Your task to perform on an android device: turn on sleep mode Image 0: 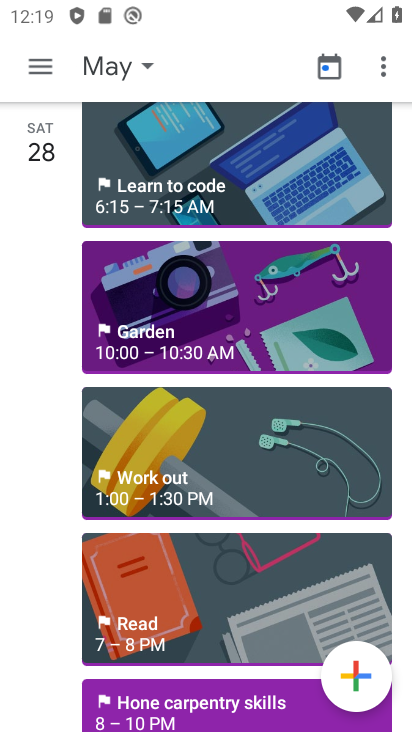
Step 0: press home button
Your task to perform on an android device: turn on sleep mode Image 1: 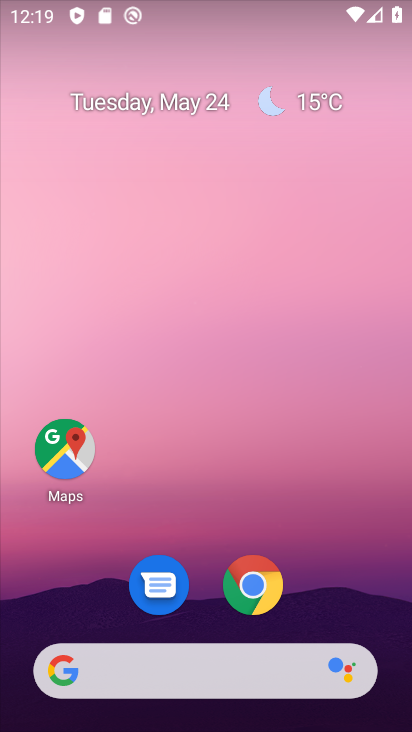
Step 1: drag from (217, 508) to (239, 34)
Your task to perform on an android device: turn on sleep mode Image 2: 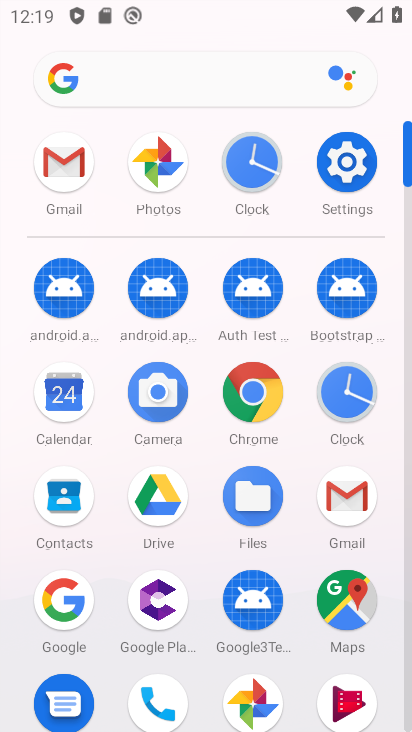
Step 2: click (339, 159)
Your task to perform on an android device: turn on sleep mode Image 3: 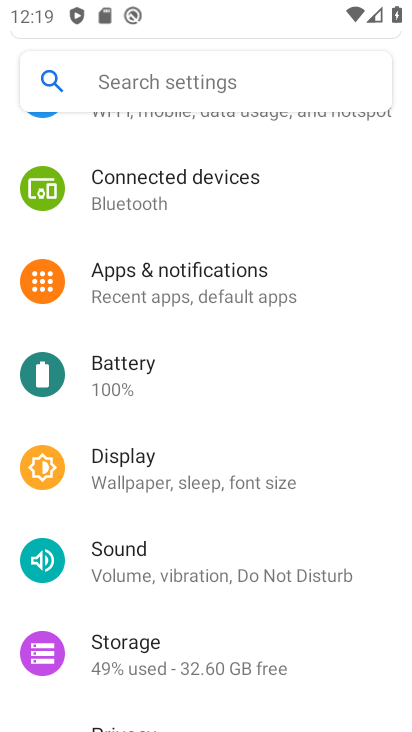
Step 3: click (241, 472)
Your task to perform on an android device: turn on sleep mode Image 4: 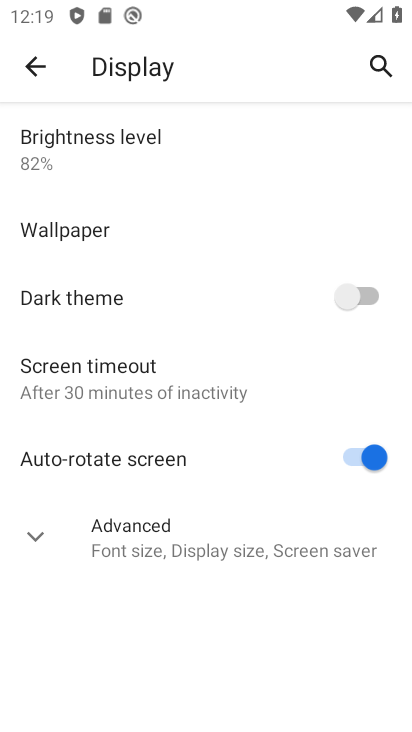
Step 4: click (34, 536)
Your task to perform on an android device: turn on sleep mode Image 5: 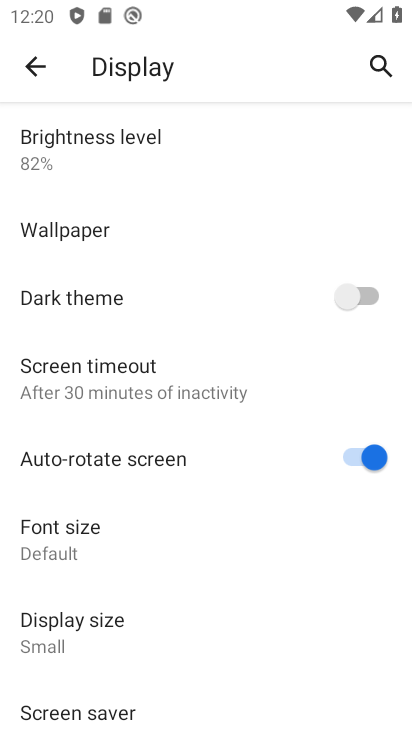
Step 5: task complete